Your task to perform on an android device: turn on javascript in the chrome app Image 0: 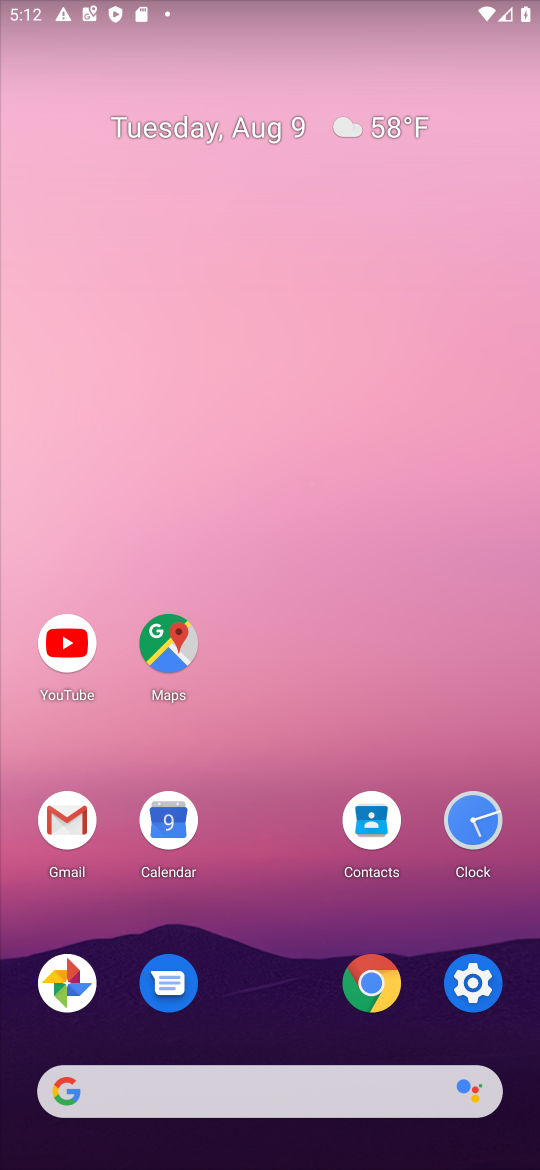
Step 0: click (360, 975)
Your task to perform on an android device: turn on javascript in the chrome app Image 1: 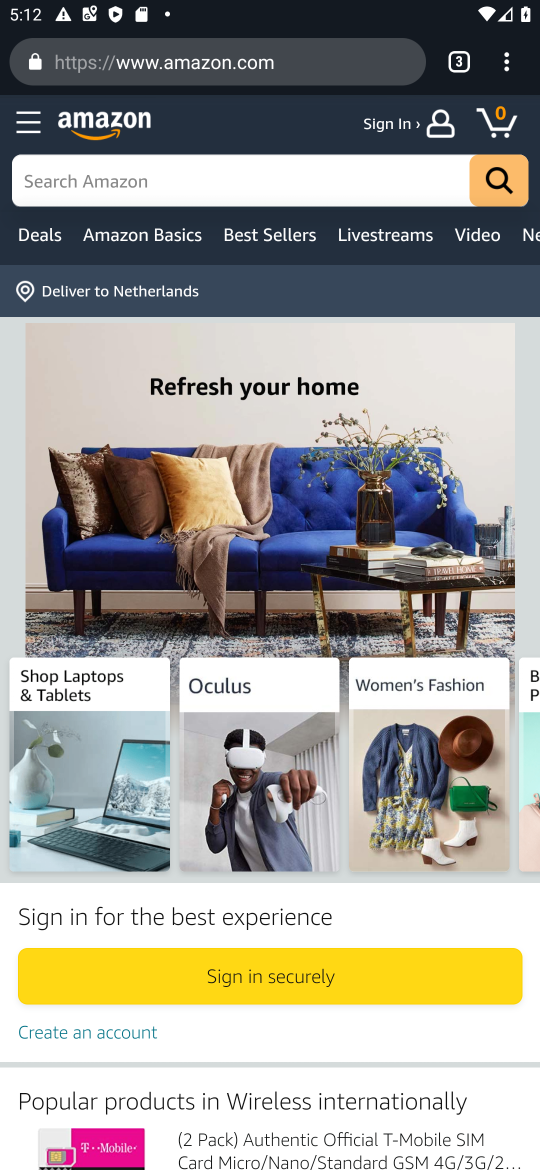
Step 1: click (494, 68)
Your task to perform on an android device: turn on javascript in the chrome app Image 2: 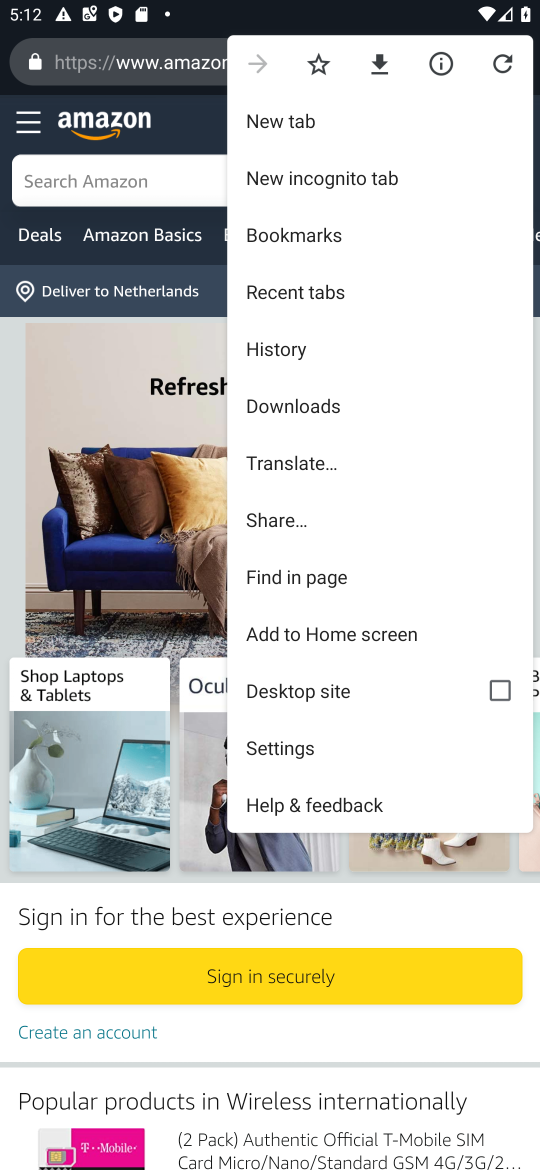
Step 2: click (298, 736)
Your task to perform on an android device: turn on javascript in the chrome app Image 3: 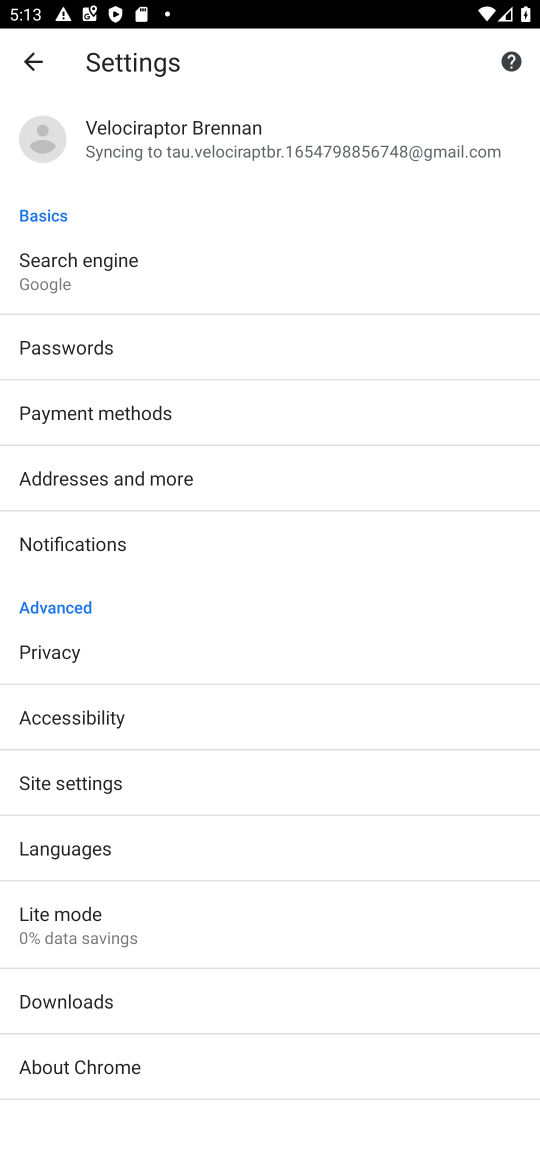
Step 3: click (127, 777)
Your task to perform on an android device: turn on javascript in the chrome app Image 4: 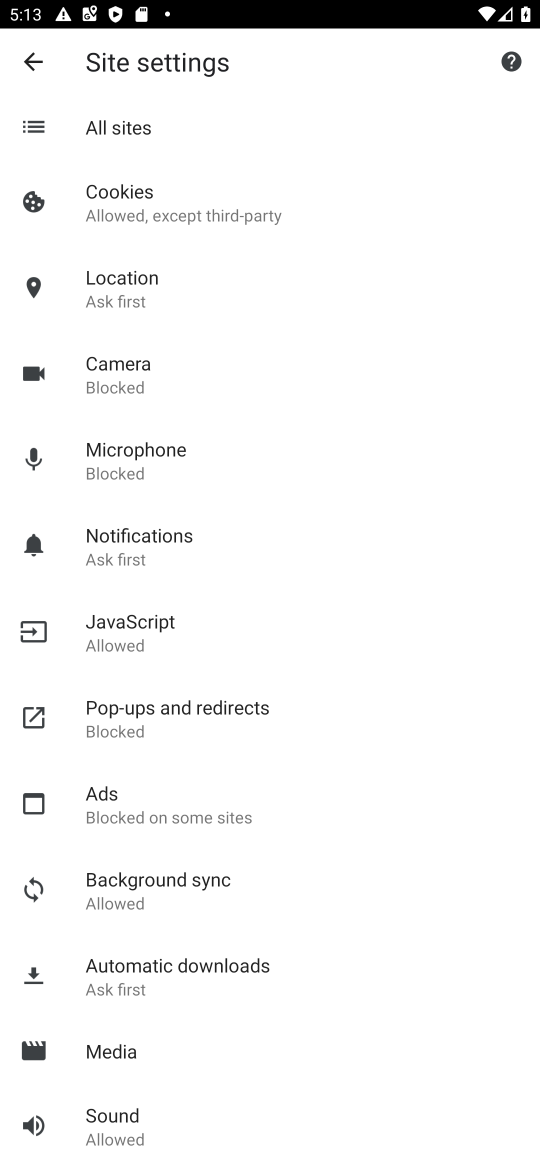
Step 4: click (127, 625)
Your task to perform on an android device: turn on javascript in the chrome app Image 5: 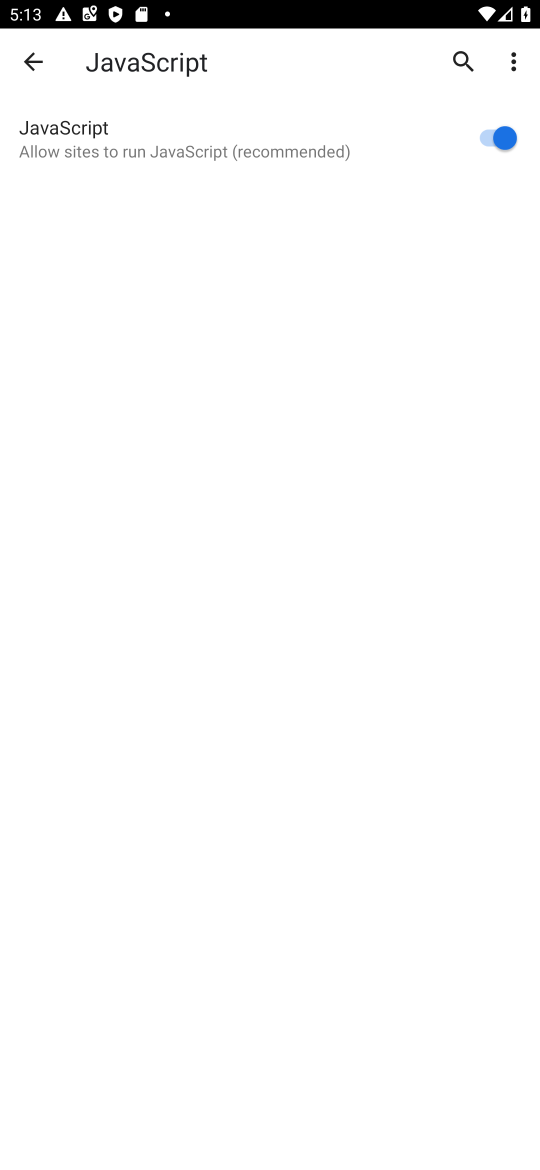
Step 5: task complete